Your task to perform on an android device: Open Google Chrome and open the bookmarks view Image 0: 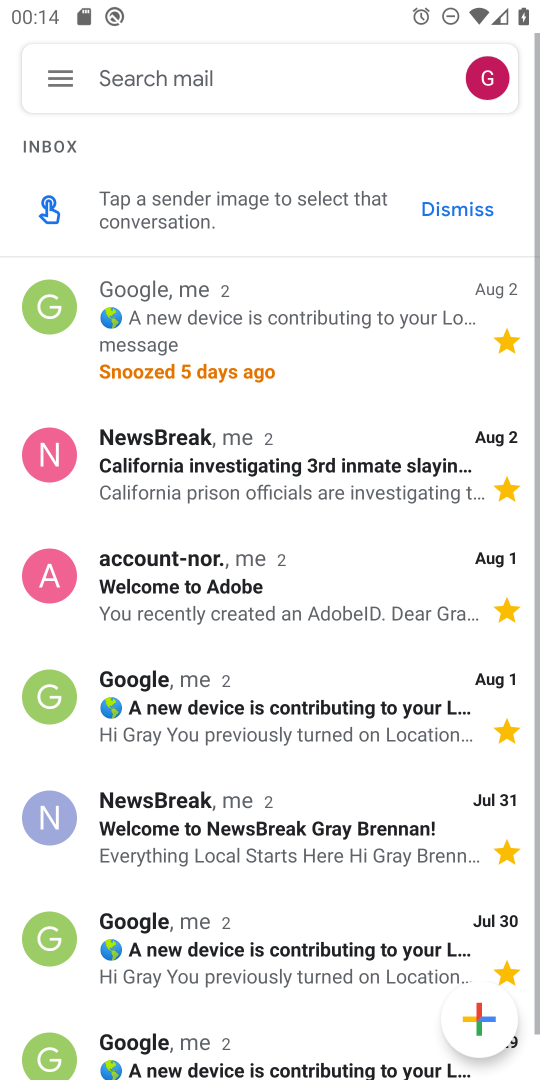
Step 0: press home button
Your task to perform on an android device: Open Google Chrome and open the bookmarks view Image 1: 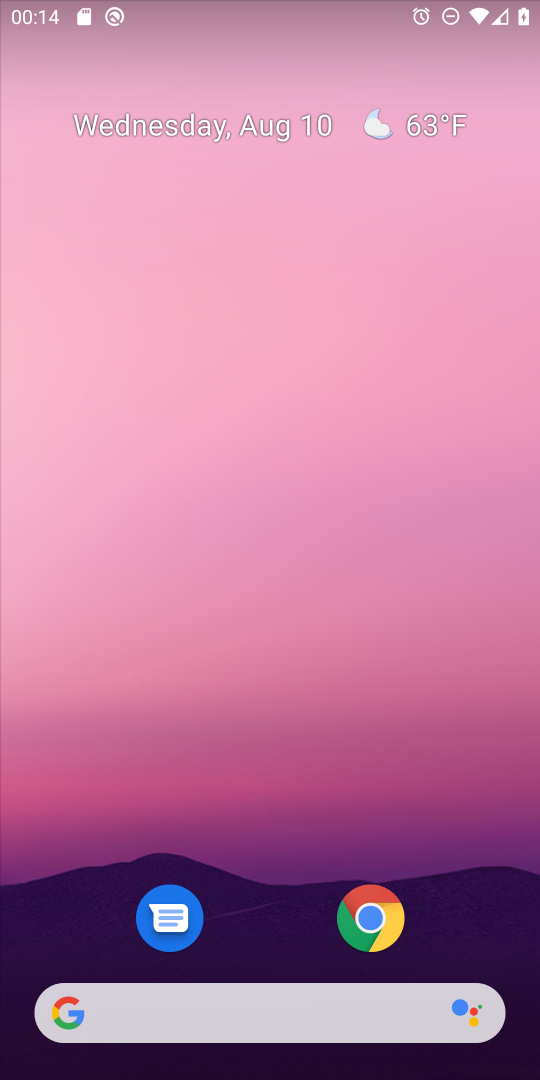
Step 1: drag from (258, 918) to (383, 241)
Your task to perform on an android device: Open Google Chrome and open the bookmarks view Image 2: 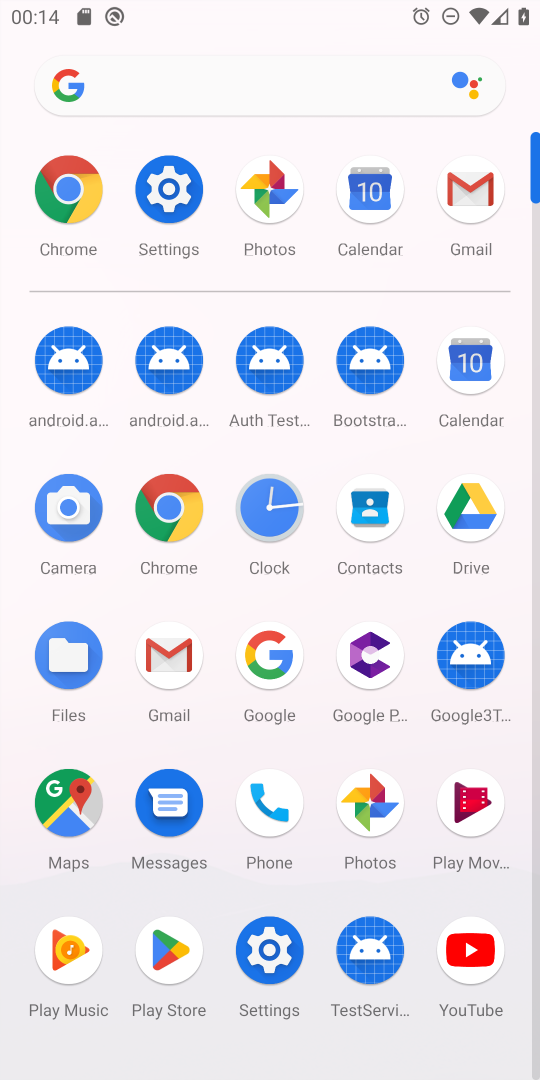
Step 2: click (166, 503)
Your task to perform on an android device: Open Google Chrome and open the bookmarks view Image 3: 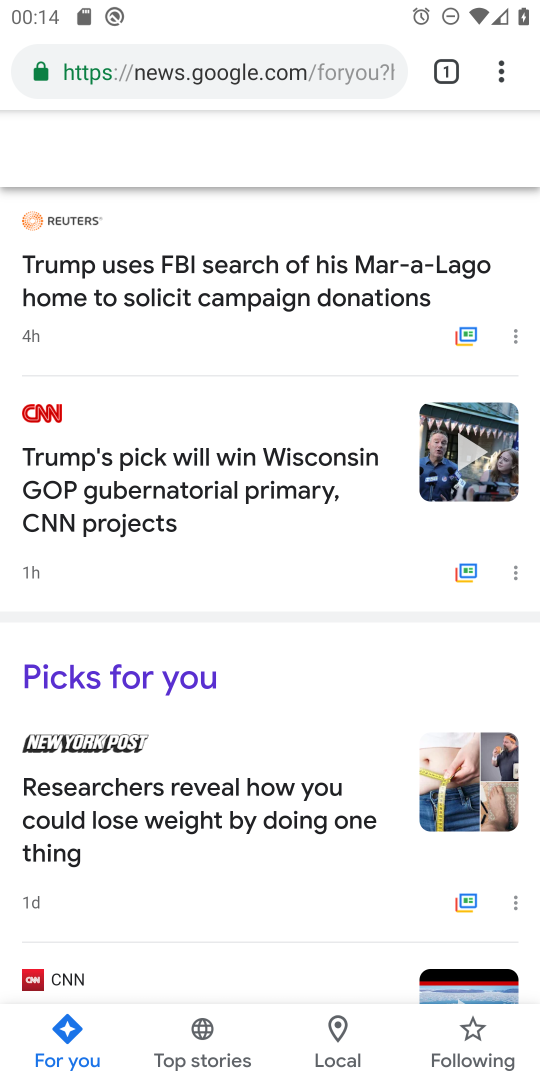
Step 3: task complete